Your task to perform on an android device: change your default location settings in chrome Image 0: 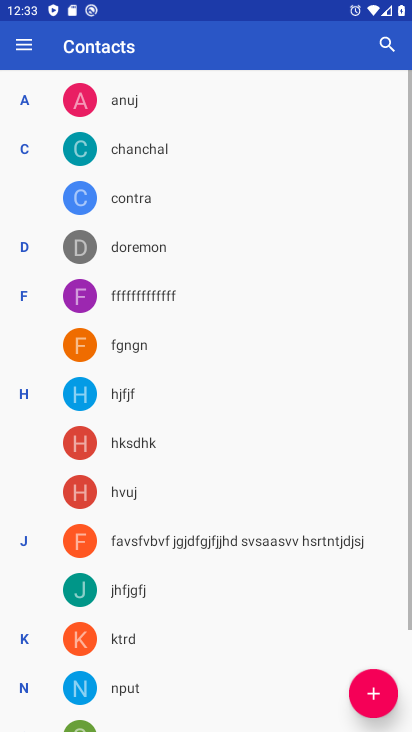
Step 0: drag from (182, 537) to (197, 252)
Your task to perform on an android device: change your default location settings in chrome Image 1: 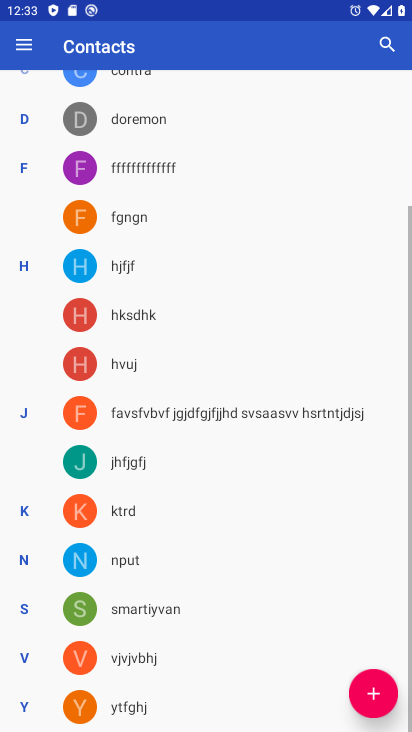
Step 1: press home button
Your task to perform on an android device: change your default location settings in chrome Image 2: 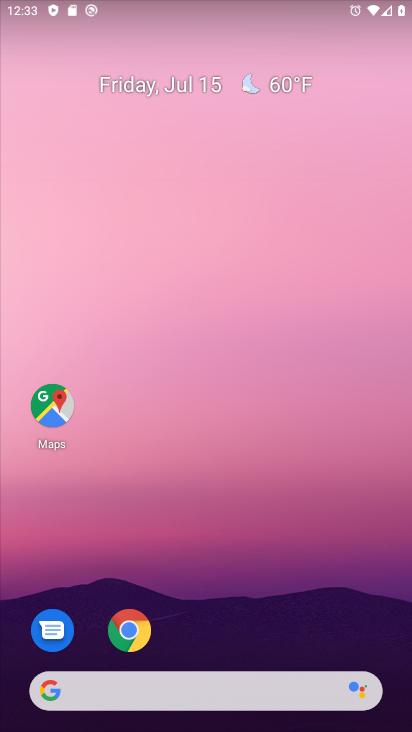
Step 2: click (133, 636)
Your task to perform on an android device: change your default location settings in chrome Image 3: 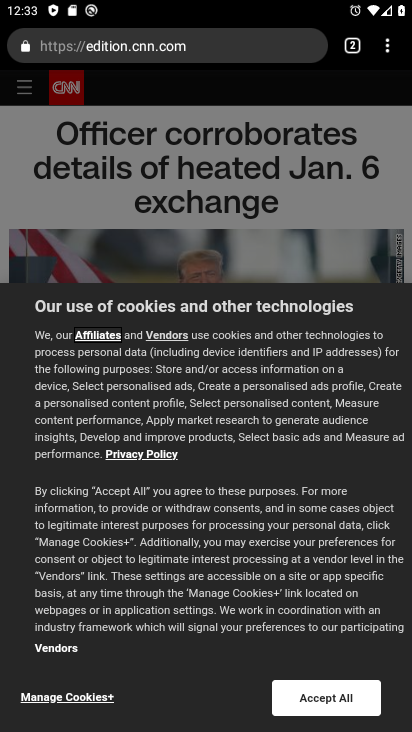
Step 3: click (391, 44)
Your task to perform on an android device: change your default location settings in chrome Image 4: 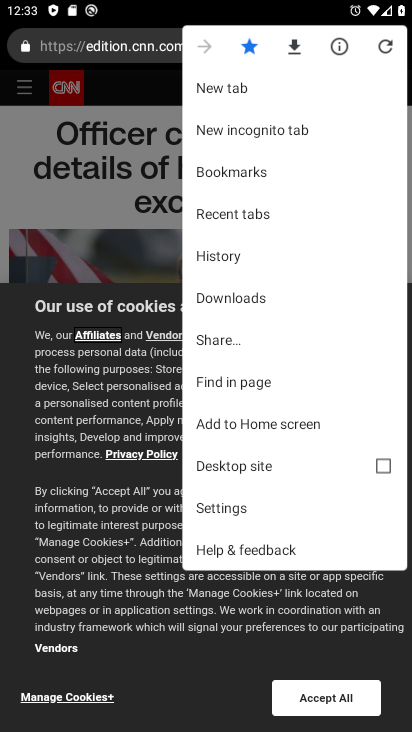
Step 4: click (221, 509)
Your task to perform on an android device: change your default location settings in chrome Image 5: 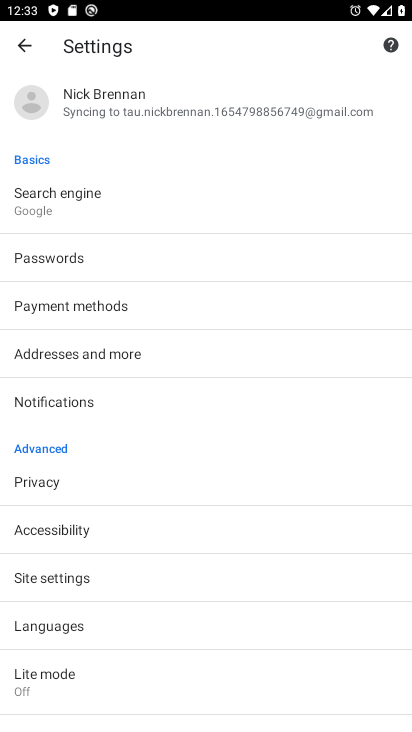
Step 5: click (75, 588)
Your task to perform on an android device: change your default location settings in chrome Image 6: 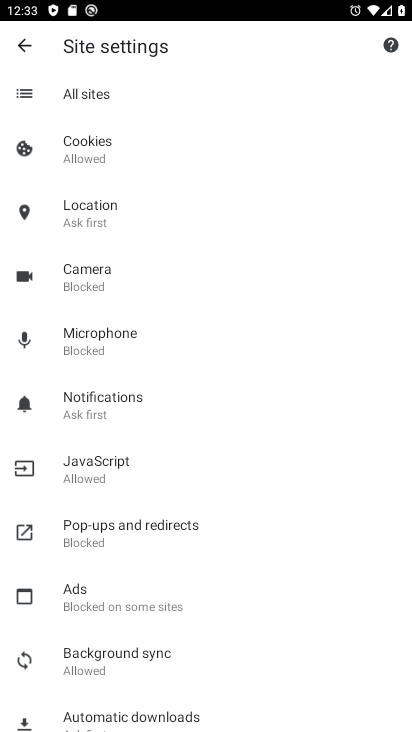
Step 6: click (104, 216)
Your task to perform on an android device: change your default location settings in chrome Image 7: 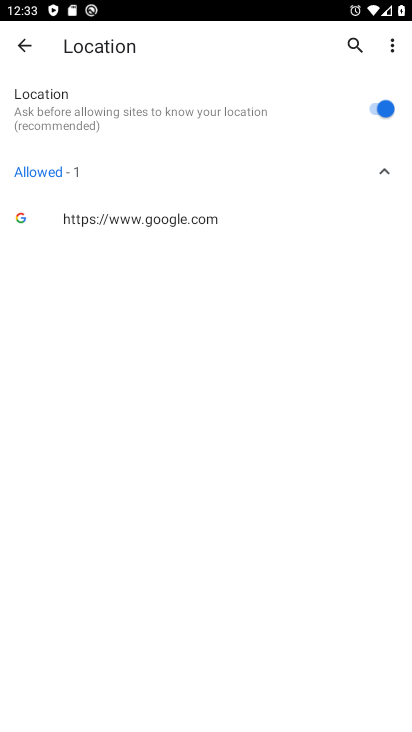
Step 7: click (374, 106)
Your task to perform on an android device: change your default location settings in chrome Image 8: 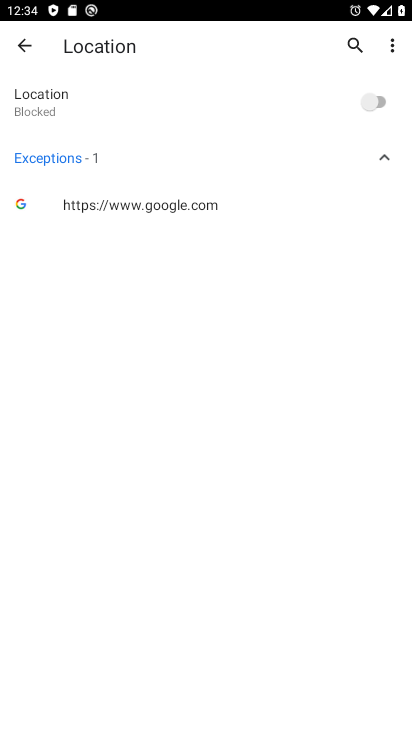
Step 8: task complete